Your task to perform on an android device: change text size in settings app Image 0: 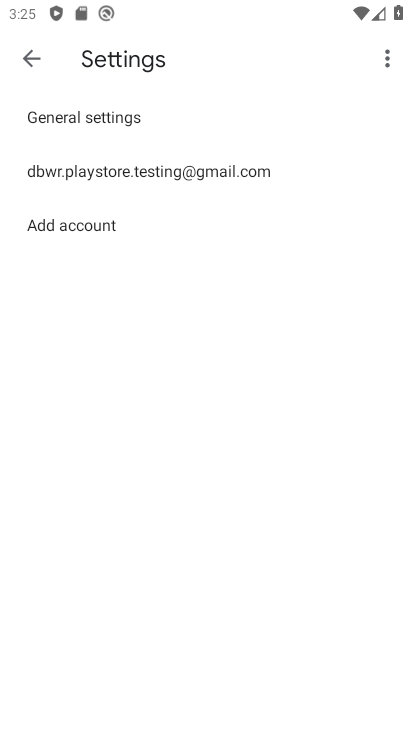
Step 0: press home button
Your task to perform on an android device: change text size in settings app Image 1: 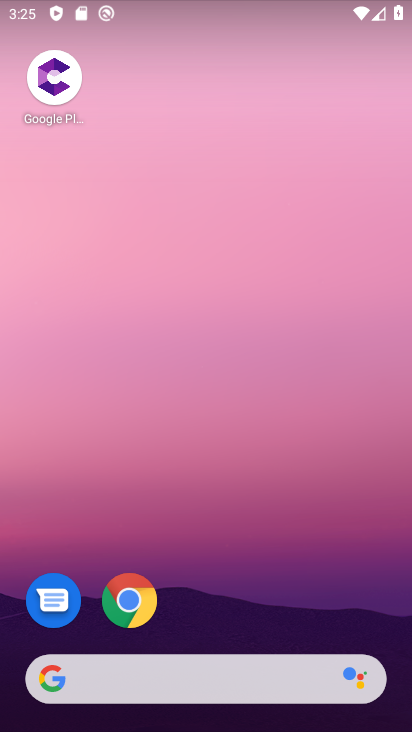
Step 1: drag from (347, 533) to (262, 158)
Your task to perform on an android device: change text size in settings app Image 2: 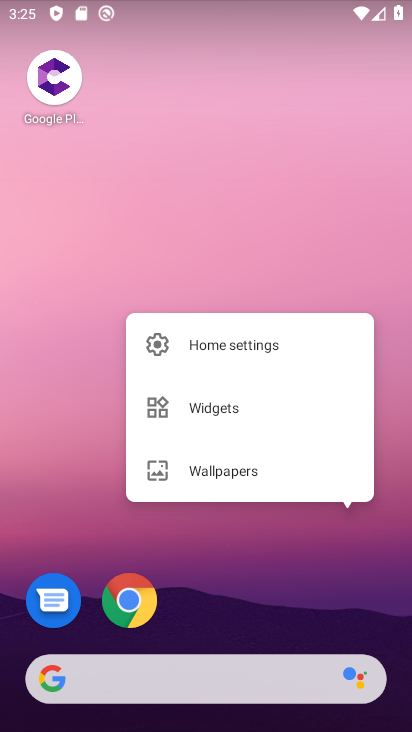
Step 2: click (250, 599)
Your task to perform on an android device: change text size in settings app Image 3: 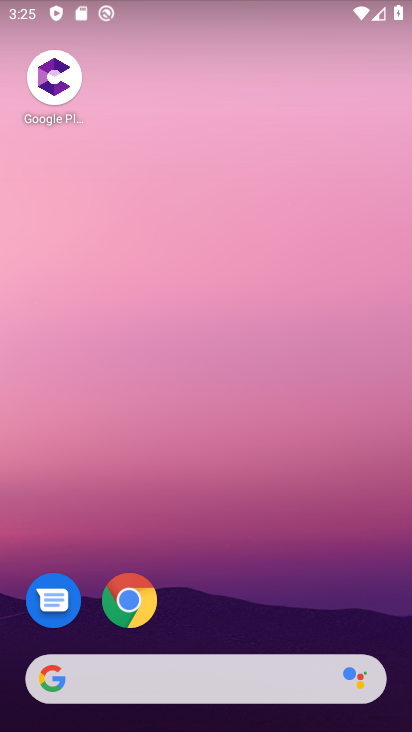
Step 3: drag from (258, 609) to (132, 104)
Your task to perform on an android device: change text size in settings app Image 4: 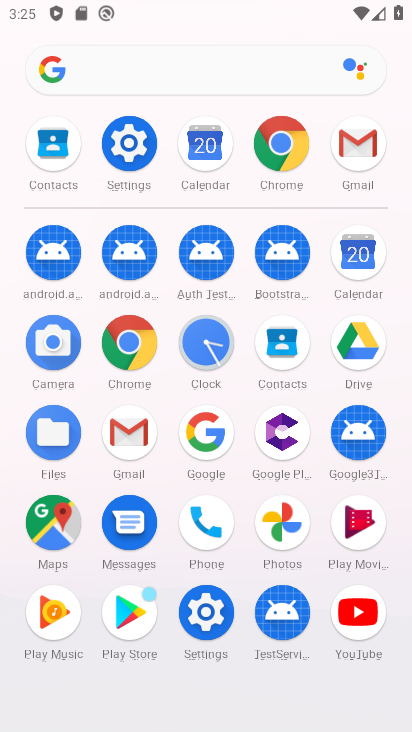
Step 4: click (127, 152)
Your task to perform on an android device: change text size in settings app Image 5: 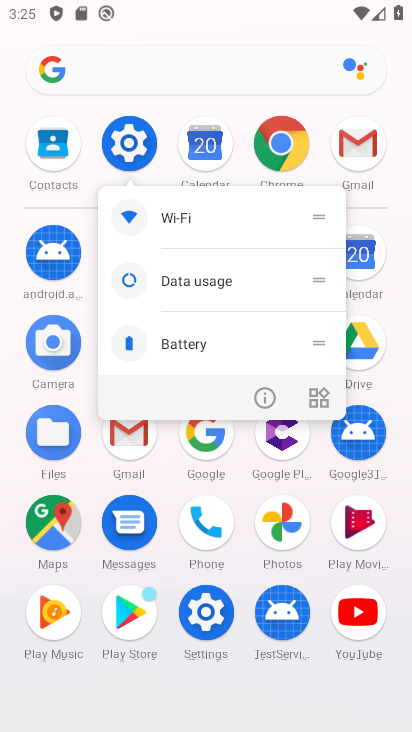
Step 5: click (127, 152)
Your task to perform on an android device: change text size in settings app Image 6: 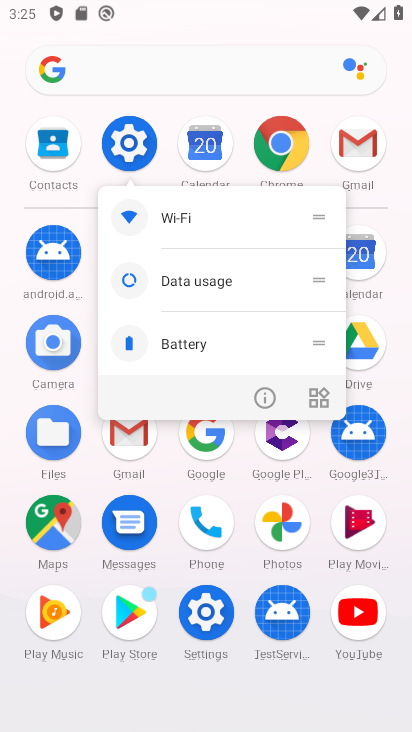
Step 6: click (127, 151)
Your task to perform on an android device: change text size in settings app Image 7: 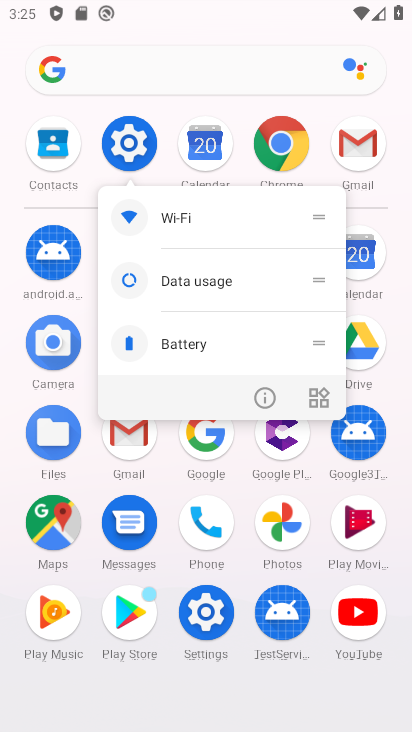
Step 7: click (127, 151)
Your task to perform on an android device: change text size in settings app Image 8: 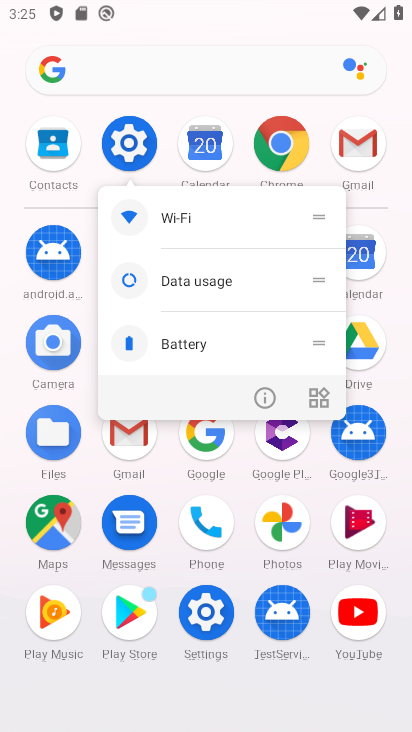
Step 8: click (127, 151)
Your task to perform on an android device: change text size in settings app Image 9: 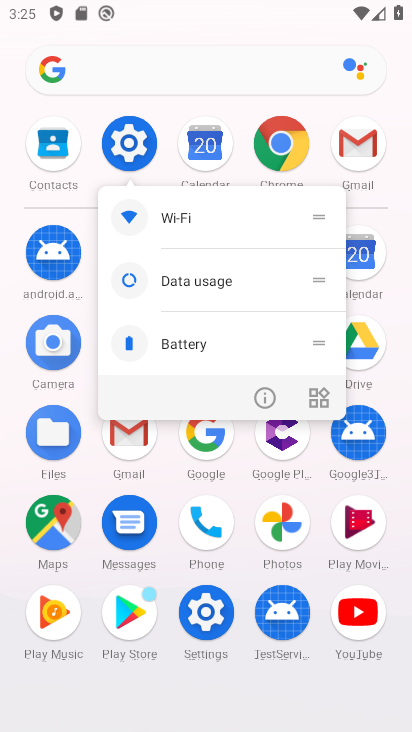
Step 9: click (127, 151)
Your task to perform on an android device: change text size in settings app Image 10: 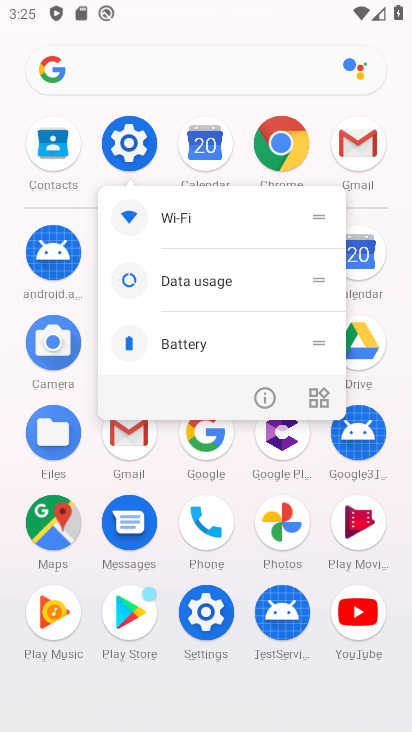
Step 10: click (127, 151)
Your task to perform on an android device: change text size in settings app Image 11: 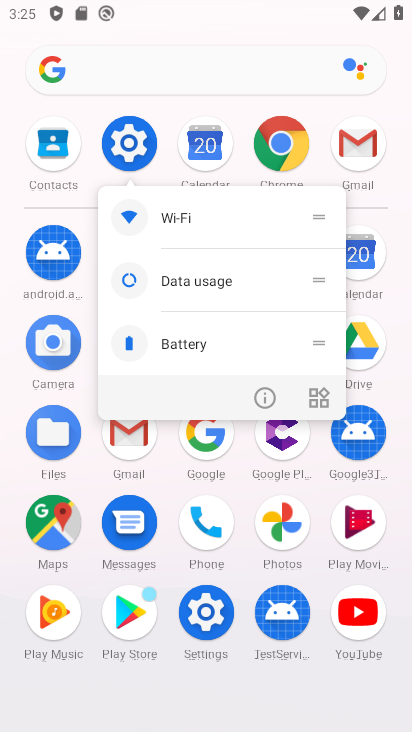
Step 11: click (127, 151)
Your task to perform on an android device: change text size in settings app Image 12: 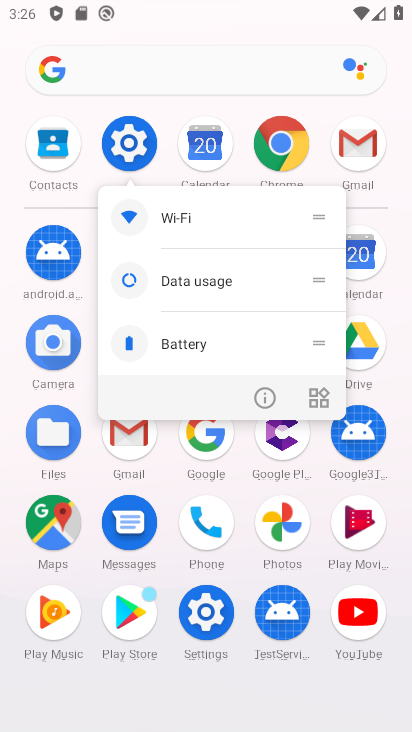
Step 12: click (127, 151)
Your task to perform on an android device: change text size in settings app Image 13: 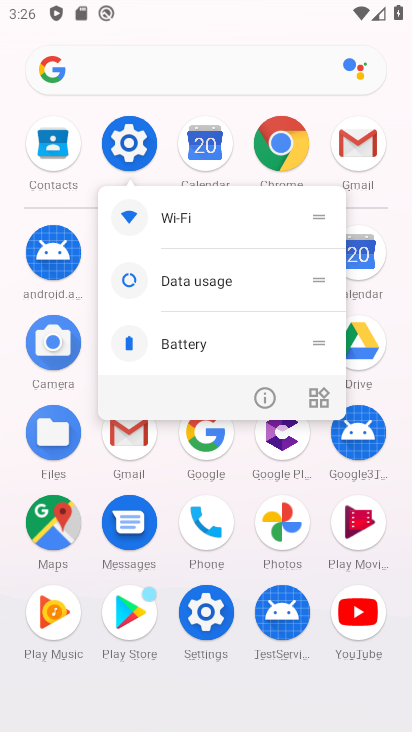
Step 13: click (127, 151)
Your task to perform on an android device: change text size in settings app Image 14: 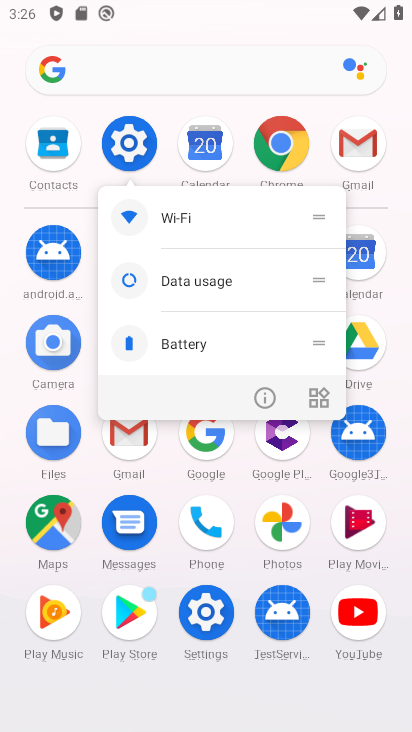
Step 14: click (127, 151)
Your task to perform on an android device: change text size in settings app Image 15: 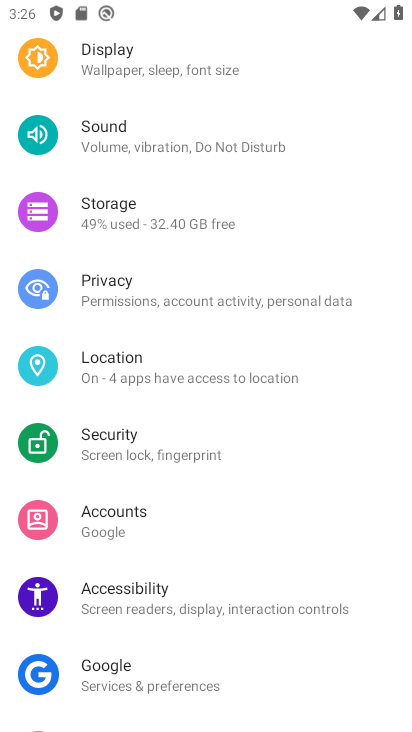
Step 15: drag from (283, 557) to (223, 217)
Your task to perform on an android device: change text size in settings app Image 16: 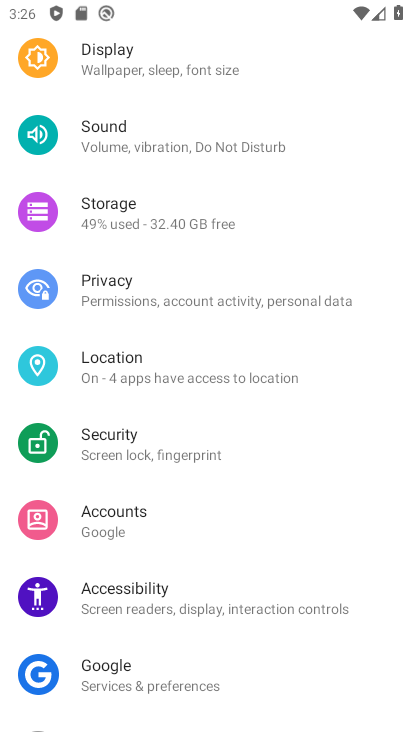
Step 16: drag from (282, 645) to (243, 272)
Your task to perform on an android device: change text size in settings app Image 17: 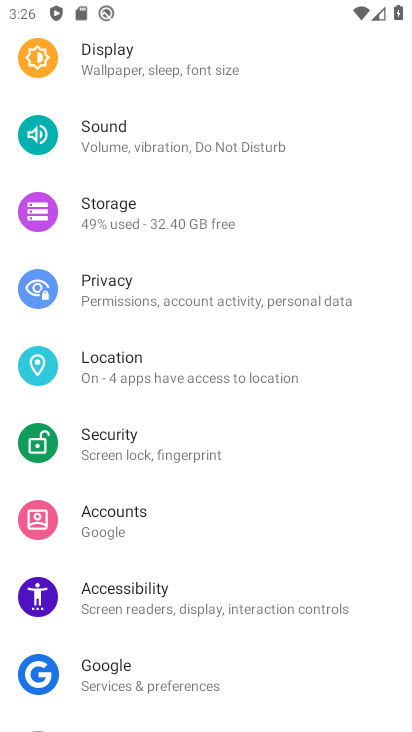
Step 17: click (280, 594)
Your task to perform on an android device: change text size in settings app Image 18: 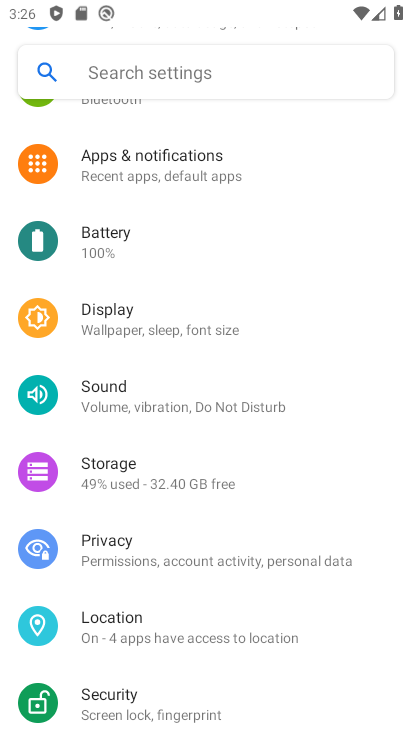
Step 18: click (218, 322)
Your task to perform on an android device: change text size in settings app Image 19: 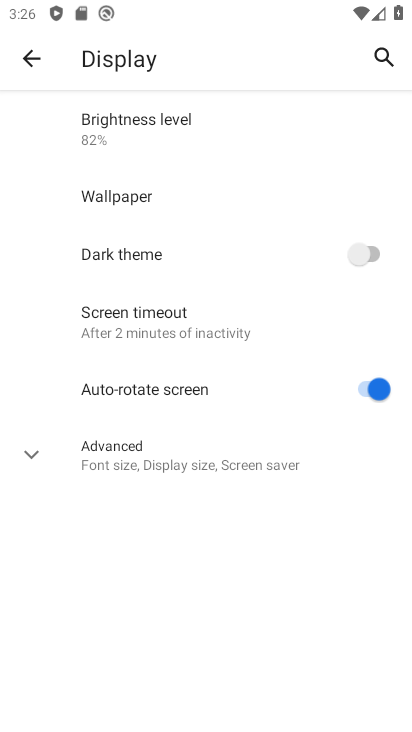
Step 19: click (127, 452)
Your task to perform on an android device: change text size in settings app Image 20: 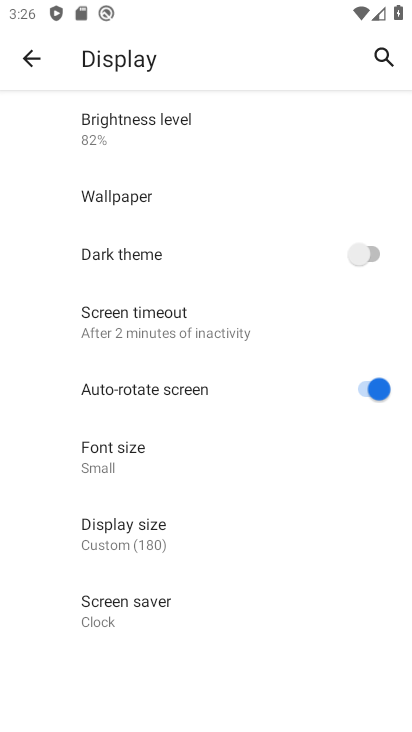
Step 20: click (99, 446)
Your task to perform on an android device: change text size in settings app Image 21: 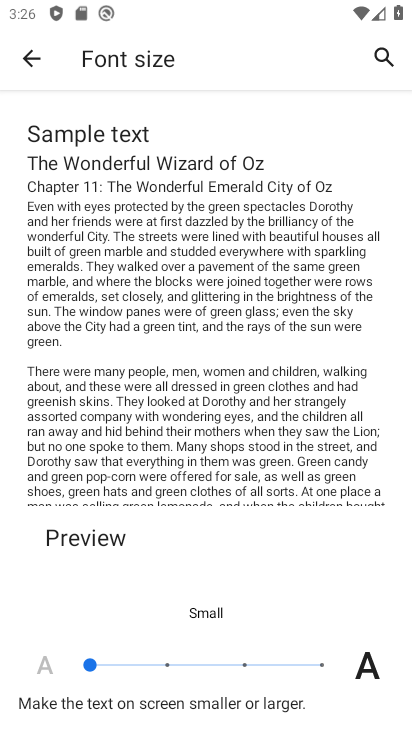
Step 21: click (164, 655)
Your task to perform on an android device: change text size in settings app Image 22: 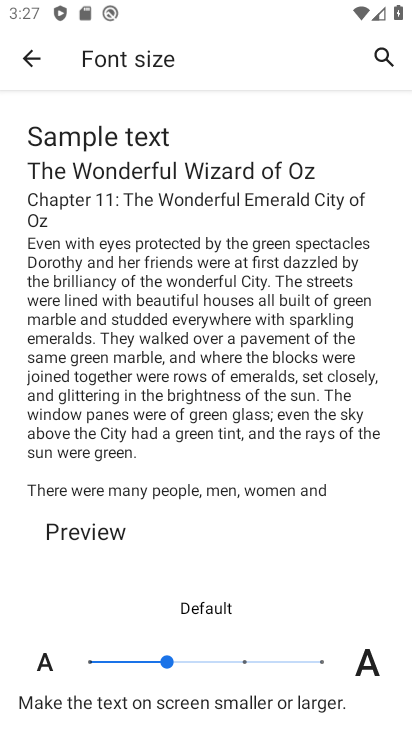
Step 22: task complete